Your task to perform on an android device: Open Google Chrome and click the shortcut for Amazon.com Image 0: 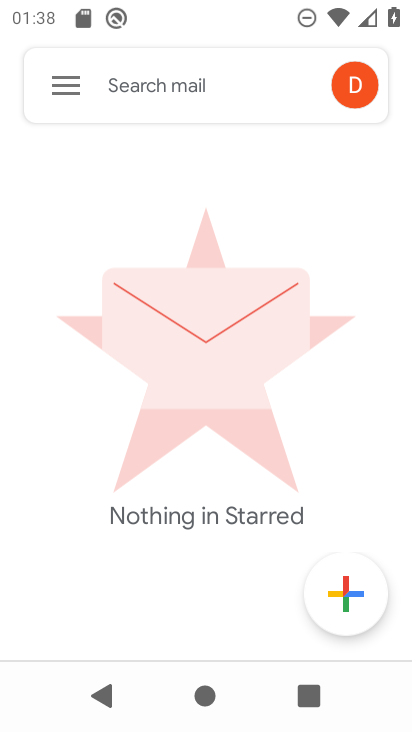
Step 0: press home button
Your task to perform on an android device: Open Google Chrome and click the shortcut for Amazon.com Image 1: 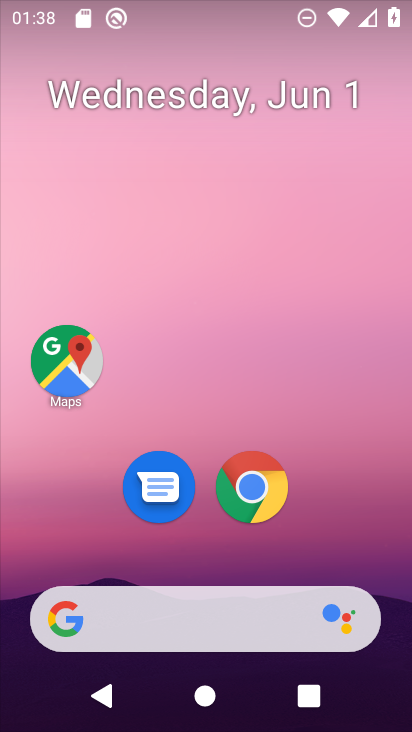
Step 1: drag from (312, 534) to (299, 304)
Your task to perform on an android device: Open Google Chrome and click the shortcut for Amazon.com Image 2: 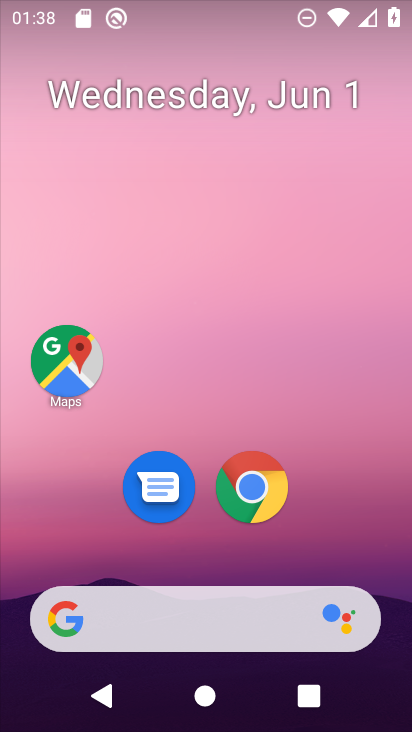
Step 2: drag from (286, 544) to (316, 187)
Your task to perform on an android device: Open Google Chrome and click the shortcut for Amazon.com Image 3: 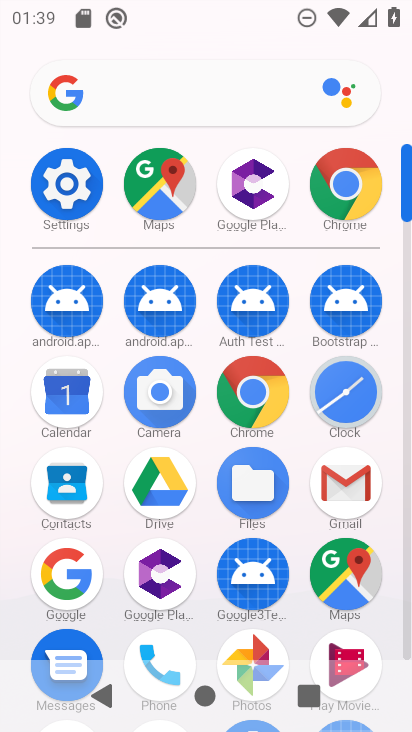
Step 3: click (243, 397)
Your task to perform on an android device: Open Google Chrome and click the shortcut for Amazon.com Image 4: 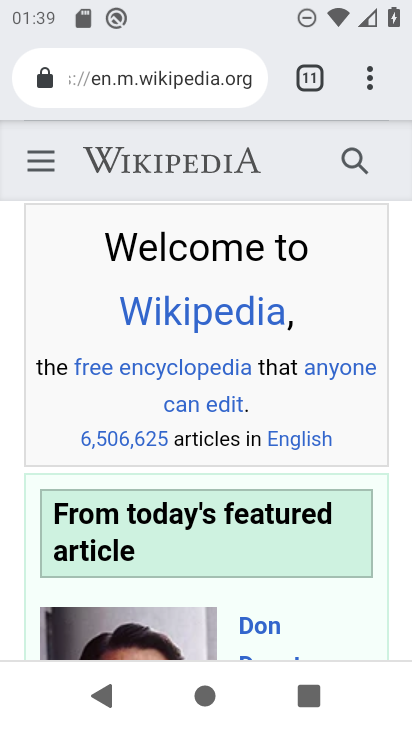
Step 4: click (370, 80)
Your task to perform on an android device: Open Google Chrome and click the shortcut for Amazon.com Image 5: 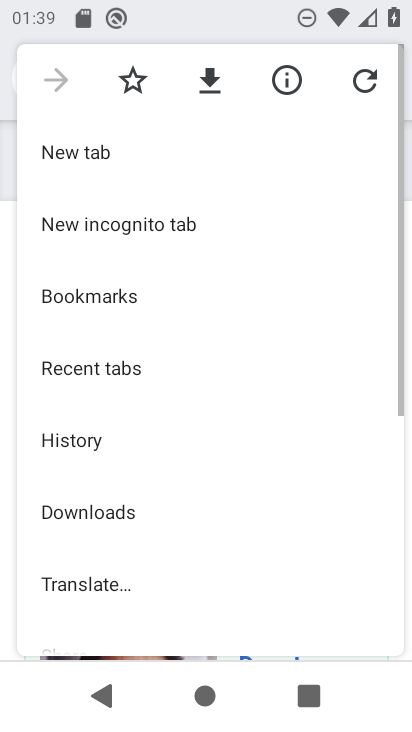
Step 5: drag from (91, 554) to (165, 239)
Your task to perform on an android device: Open Google Chrome and click the shortcut for Amazon.com Image 6: 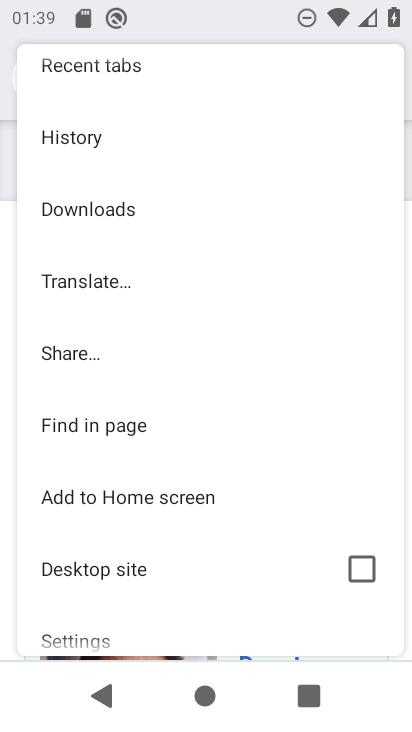
Step 6: drag from (131, 569) to (221, 245)
Your task to perform on an android device: Open Google Chrome and click the shortcut for Amazon.com Image 7: 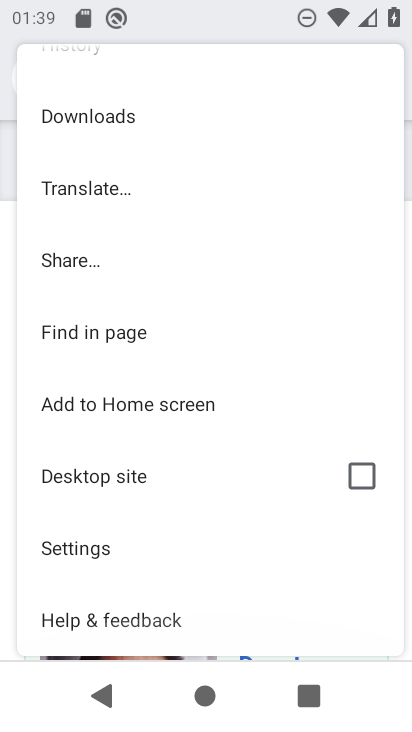
Step 7: drag from (221, 254) to (184, 598)
Your task to perform on an android device: Open Google Chrome and click the shortcut for Amazon.com Image 8: 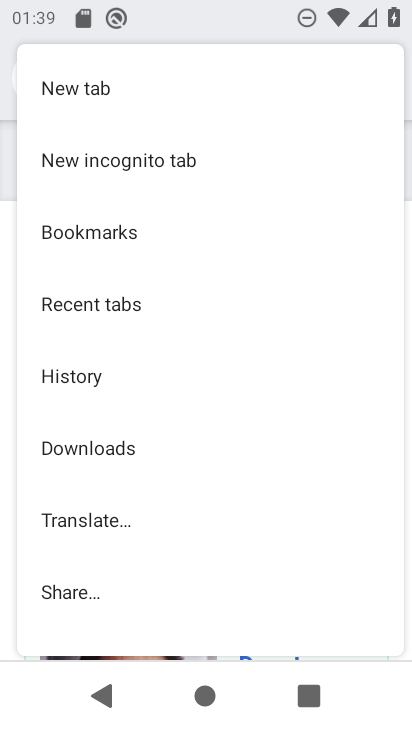
Step 8: click (144, 97)
Your task to perform on an android device: Open Google Chrome and click the shortcut for Amazon.com Image 9: 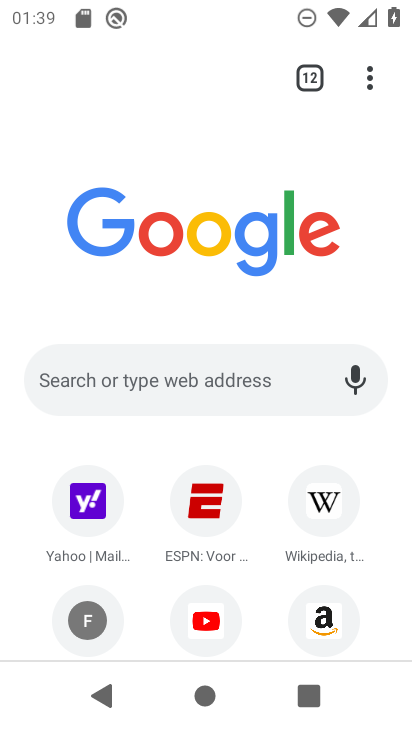
Step 9: click (337, 627)
Your task to perform on an android device: Open Google Chrome and click the shortcut for Amazon.com Image 10: 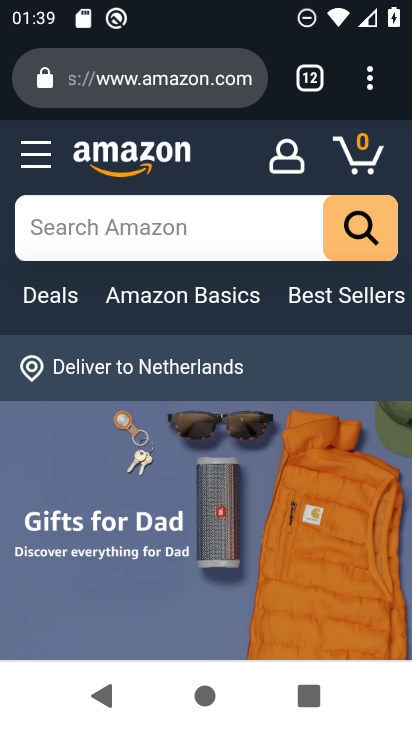
Step 10: task complete